Your task to perform on an android device: Open Google Chrome Image 0: 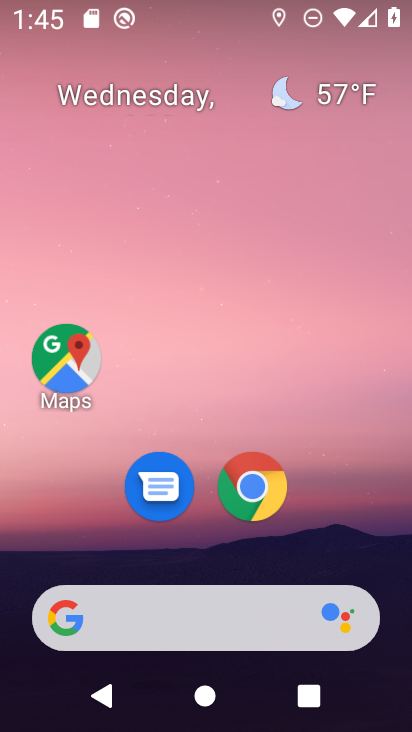
Step 0: drag from (374, 537) to (391, 148)
Your task to perform on an android device: Open Google Chrome Image 1: 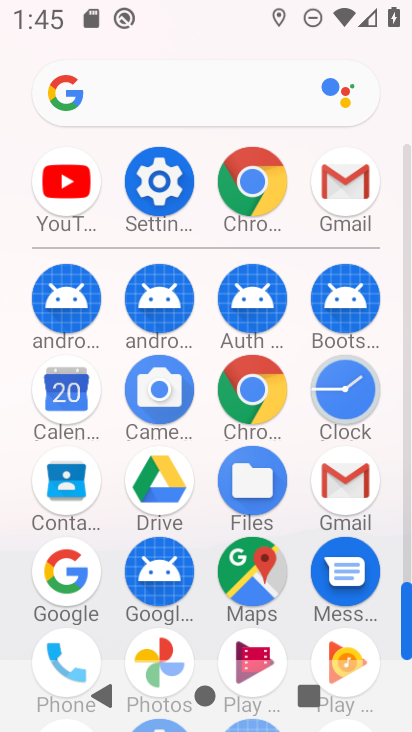
Step 1: click (283, 385)
Your task to perform on an android device: Open Google Chrome Image 2: 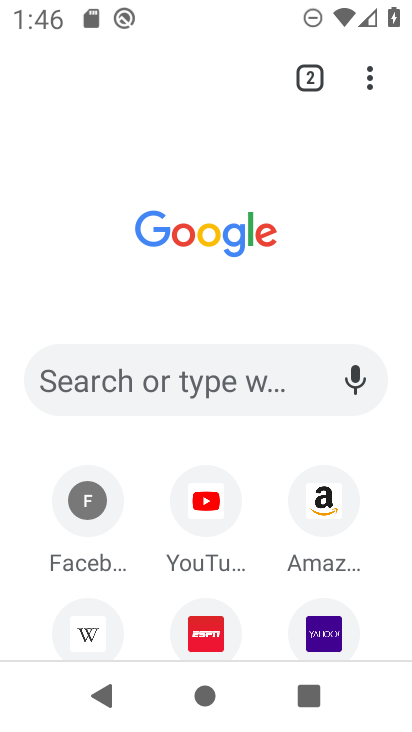
Step 2: task complete